Your task to perform on an android device: Is it going to rain today? Image 0: 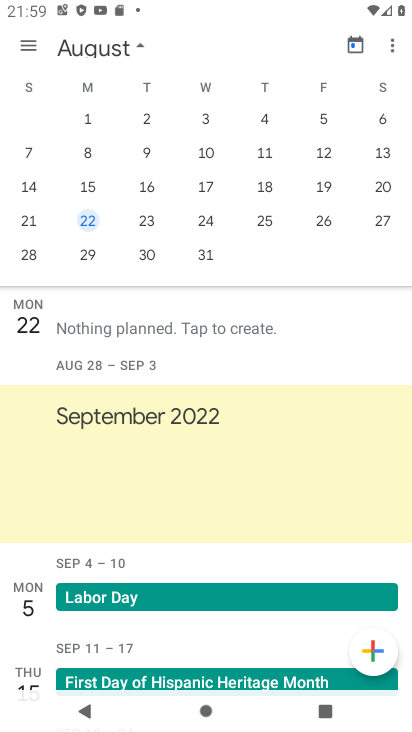
Step 0: press home button
Your task to perform on an android device: Is it going to rain today? Image 1: 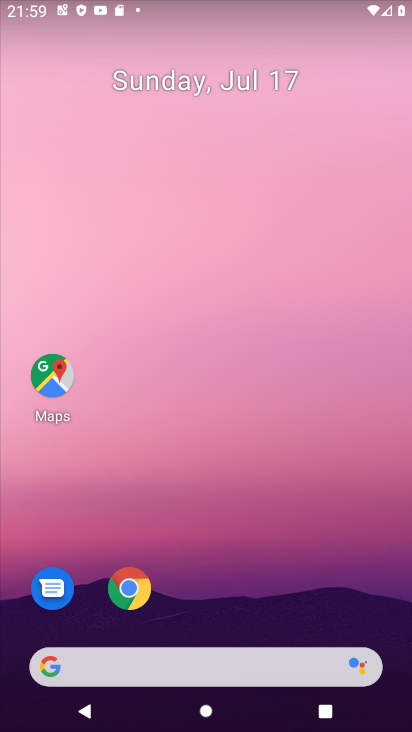
Step 1: drag from (261, 588) to (291, 58)
Your task to perform on an android device: Is it going to rain today? Image 2: 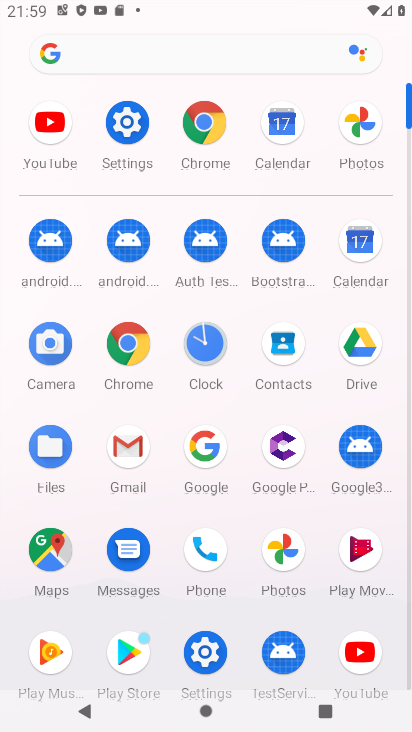
Step 2: click (202, 133)
Your task to perform on an android device: Is it going to rain today? Image 3: 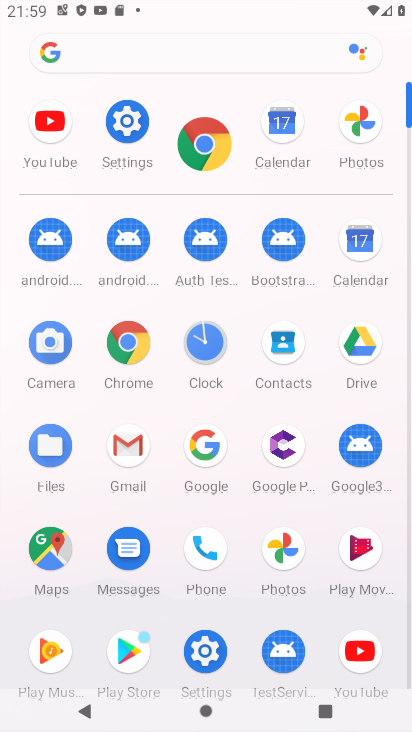
Step 3: task complete